Your task to perform on an android device: turn off picture-in-picture Image 0: 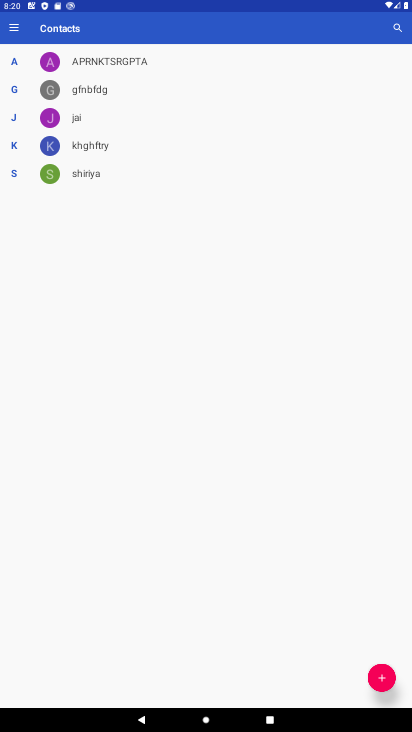
Step 0: press home button
Your task to perform on an android device: turn off picture-in-picture Image 1: 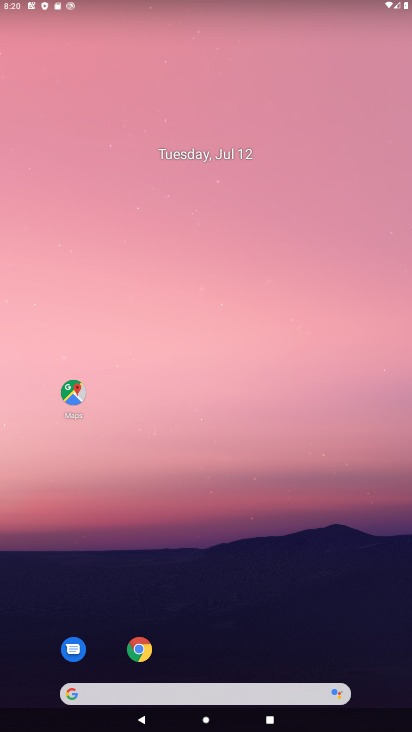
Step 1: click (214, 656)
Your task to perform on an android device: turn off picture-in-picture Image 2: 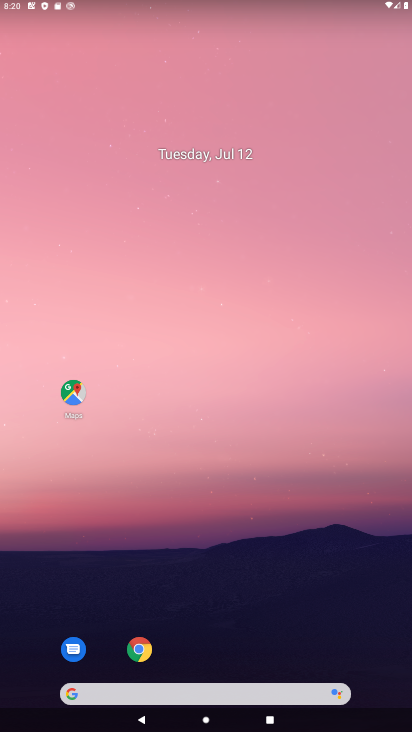
Step 2: click (138, 650)
Your task to perform on an android device: turn off picture-in-picture Image 3: 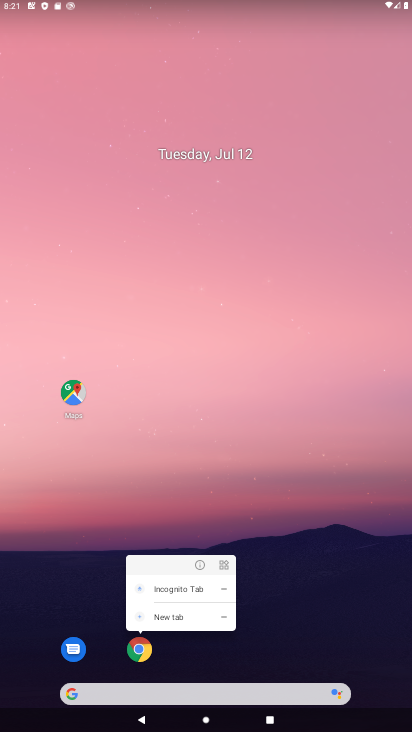
Step 3: click (195, 567)
Your task to perform on an android device: turn off picture-in-picture Image 4: 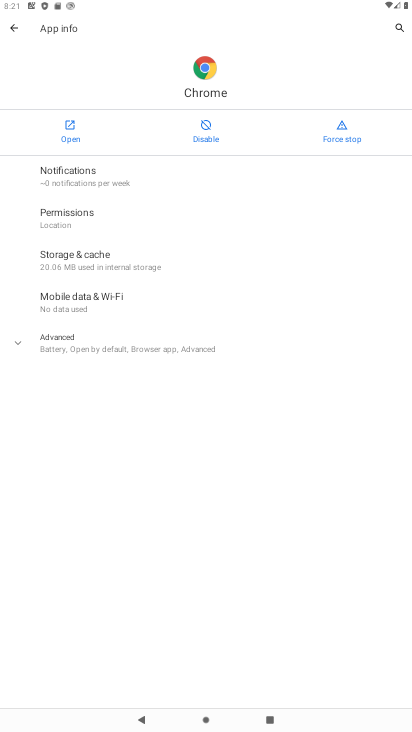
Step 4: click (59, 339)
Your task to perform on an android device: turn off picture-in-picture Image 5: 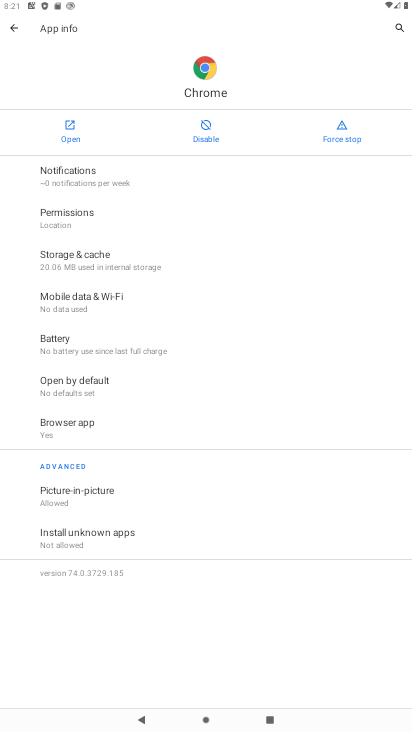
Step 5: click (92, 489)
Your task to perform on an android device: turn off picture-in-picture Image 6: 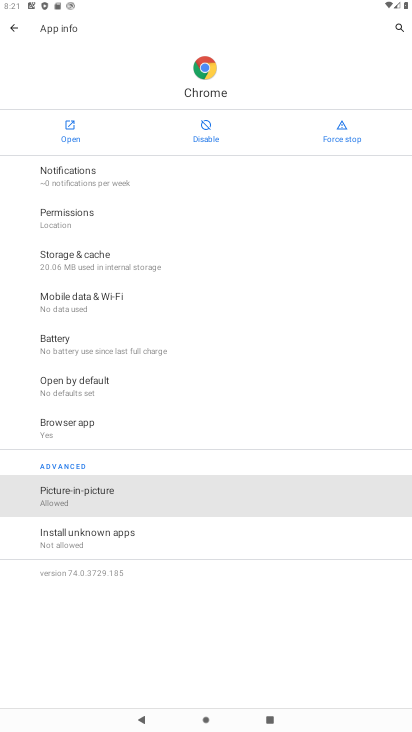
Step 6: drag from (83, 498) to (355, 79)
Your task to perform on an android device: turn off picture-in-picture Image 7: 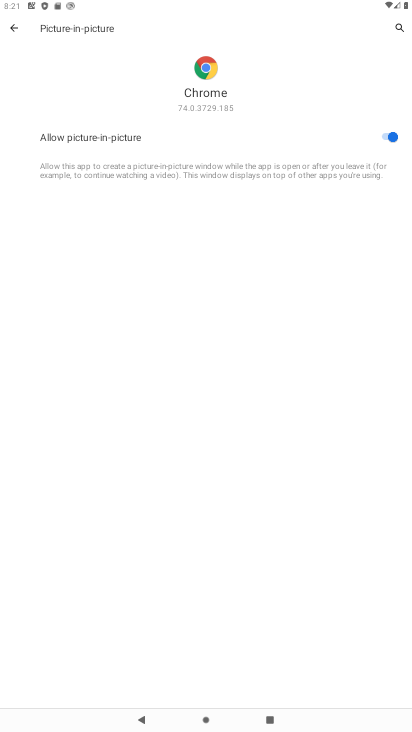
Step 7: click (388, 134)
Your task to perform on an android device: turn off picture-in-picture Image 8: 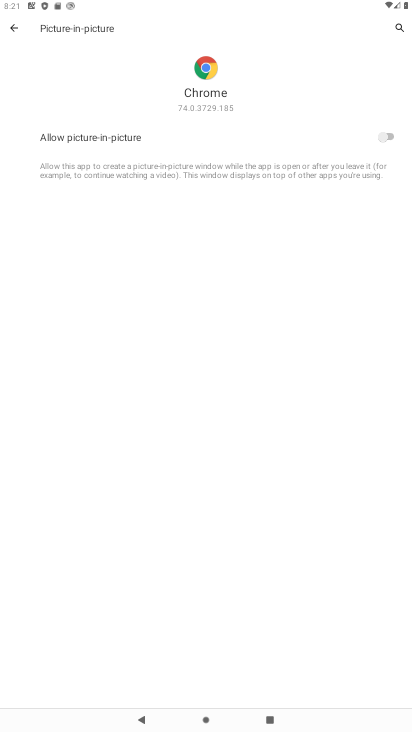
Step 8: task complete